Your task to perform on an android device: Open battery settings Image 0: 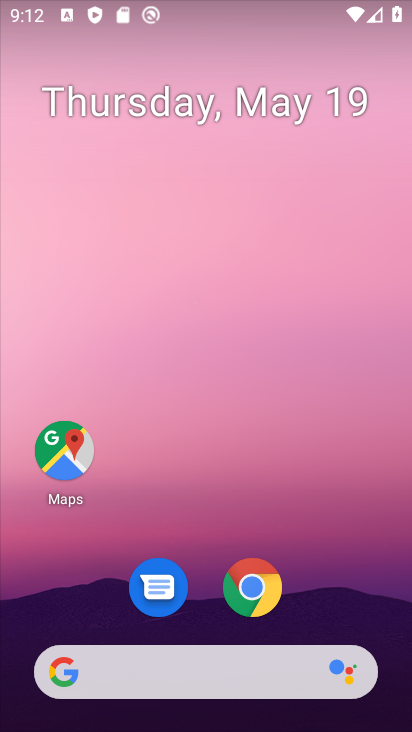
Step 0: drag from (333, 628) to (389, 30)
Your task to perform on an android device: Open battery settings Image 1: 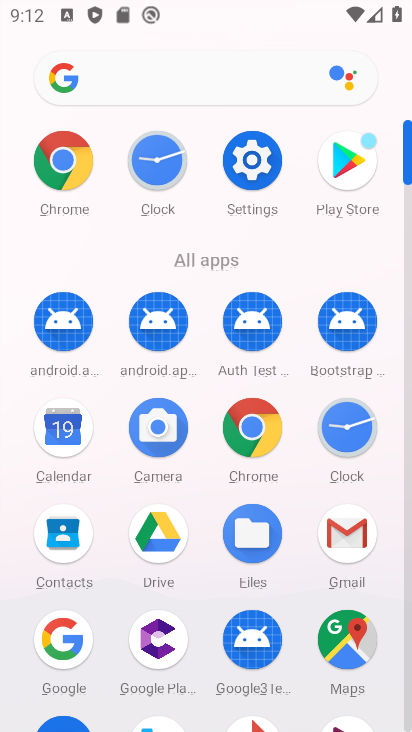
Step 1: click (259, 162)
Your task to perform on an android device: Open battery settings Image 2: 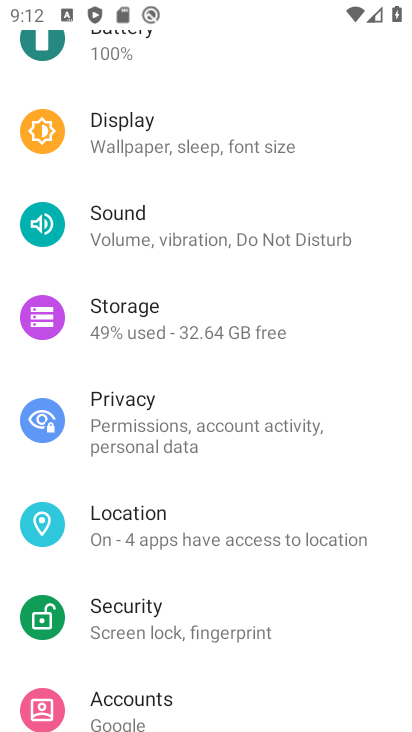
Step 2: drag from (259, 161) to (223, 582)
Your task to perform on an android device: Open battery settings Image 3: 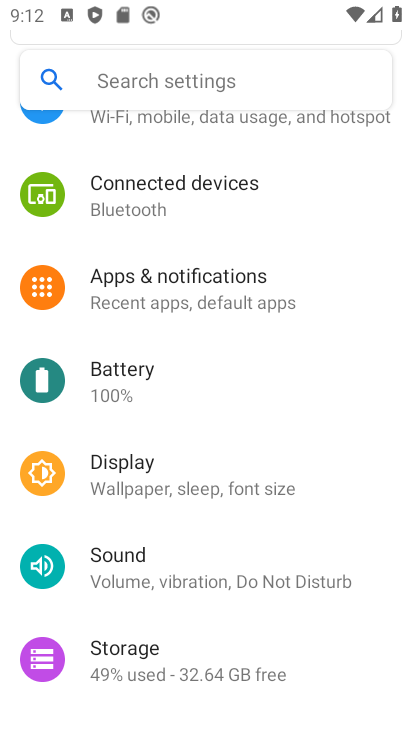
Step 3: click (142, 377)
Your task to perform on an android device: Open battery settings Image 4: 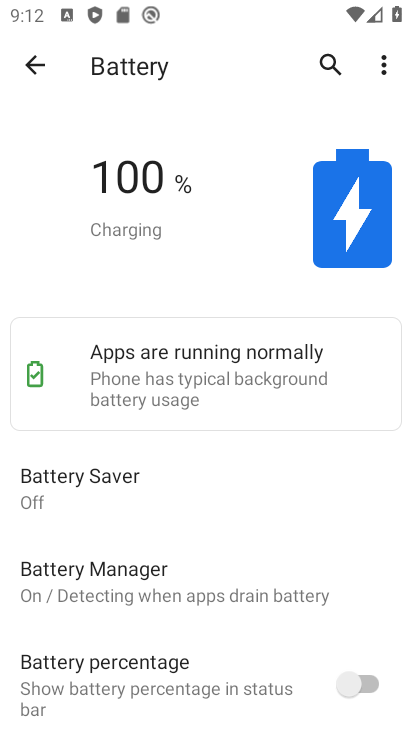
Step 4: task complete